Your task to perform on an android device: Search for "logitech g pro" on costco, select the first entry, and add it to the cart. Image 0: 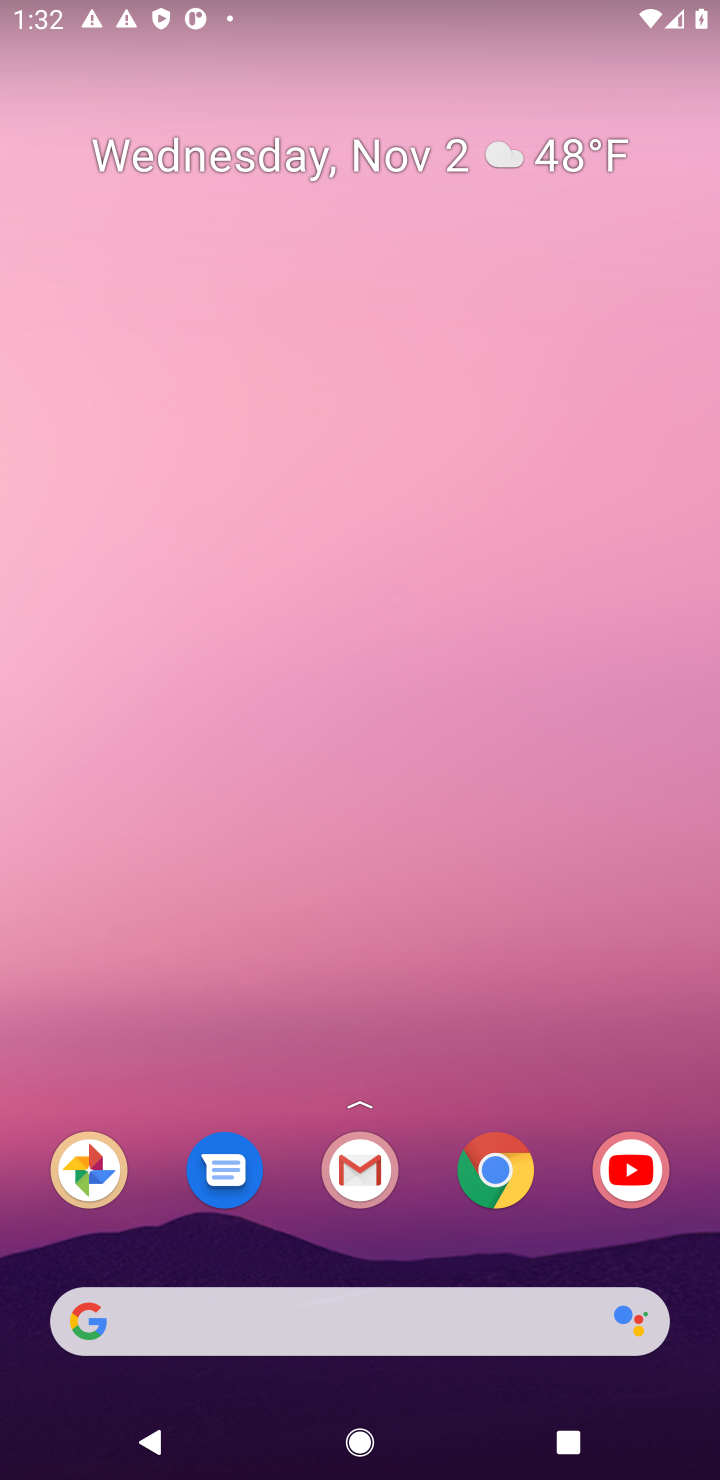
Step 0: drag from (386, 902) to (455, 482)
Your task to perform on an android device: Search for "logitech g pro" on costco, select the first entry, and add it to the cart. Image 1: 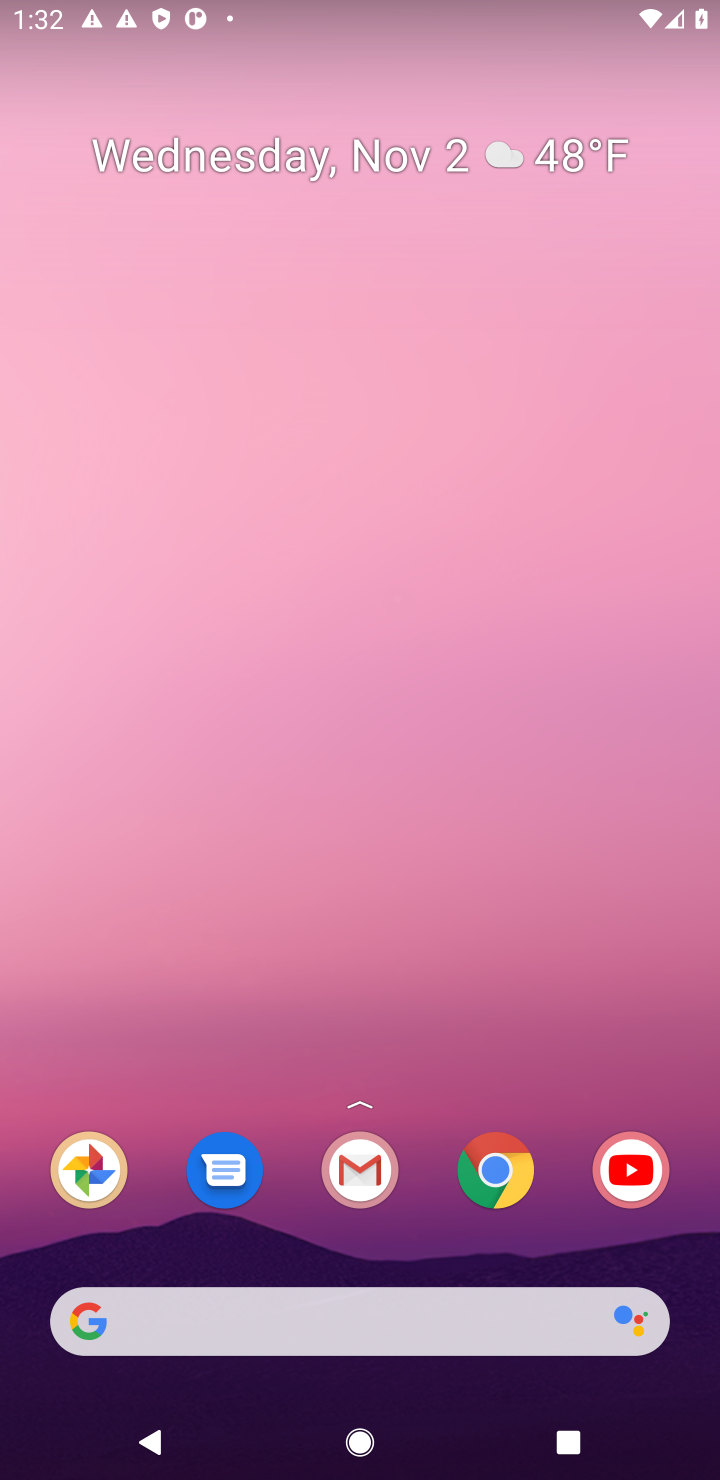
Step 1: drag from (423, 1218) to (425, 433)
Your task to perform on an android device: Search for "logitech g pro" on costco, select the first entry, and add it to the cart. Image 2: 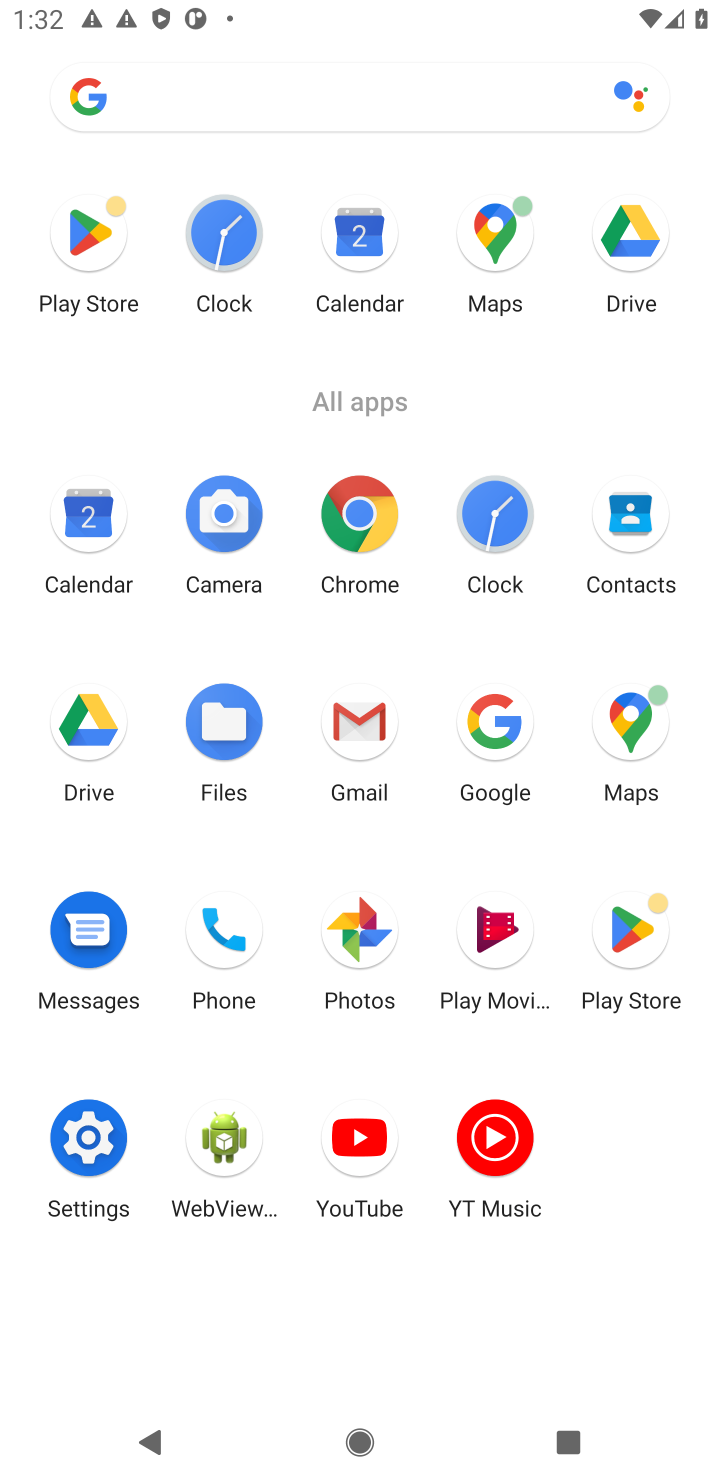
Step 2: click (498, 766)
Your task to perform on an android device: Search for "logitech g pro" on costco, select the first entry, and add it to the cart. Image 3: 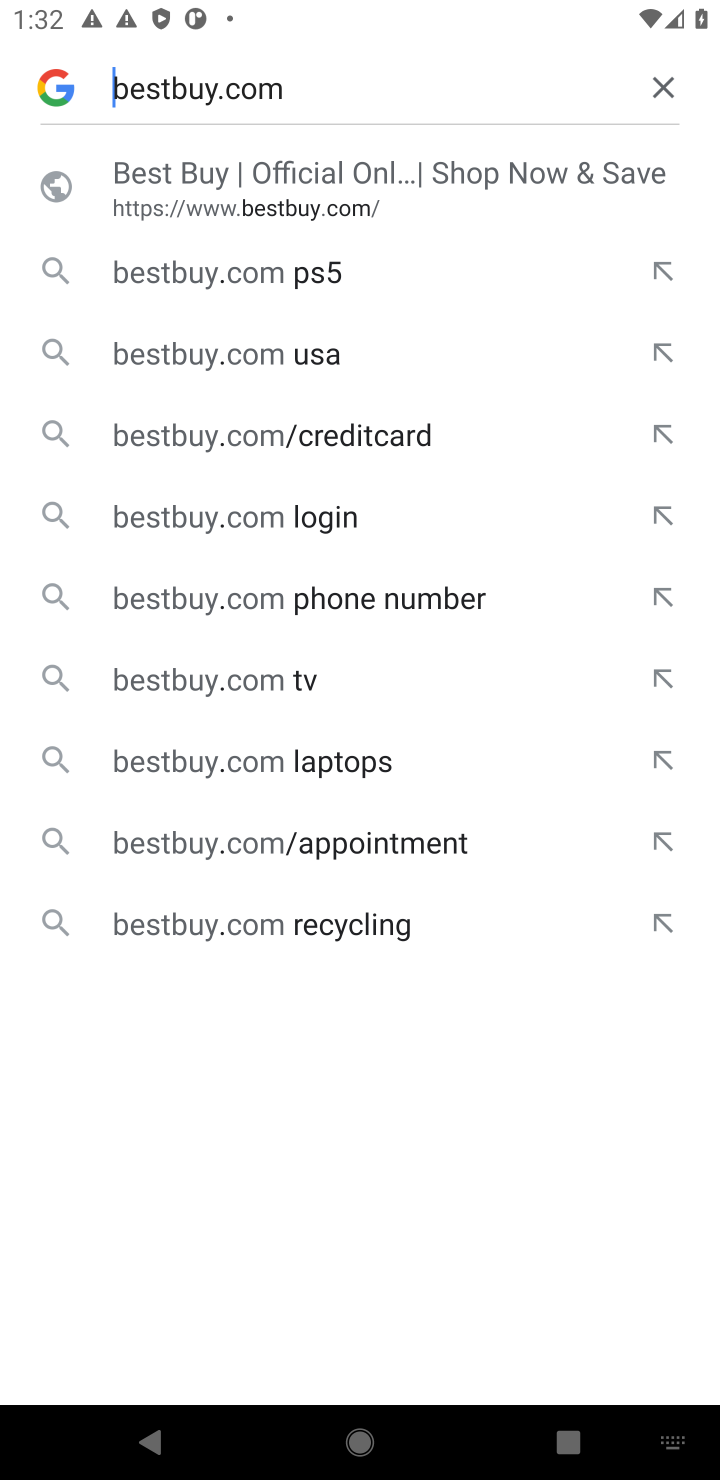
Step 3: click (663, 101)
Your task to perform on an android device: Search for "logitech g pro" on costco, select the first entry, and add it to the cart. Image 4: 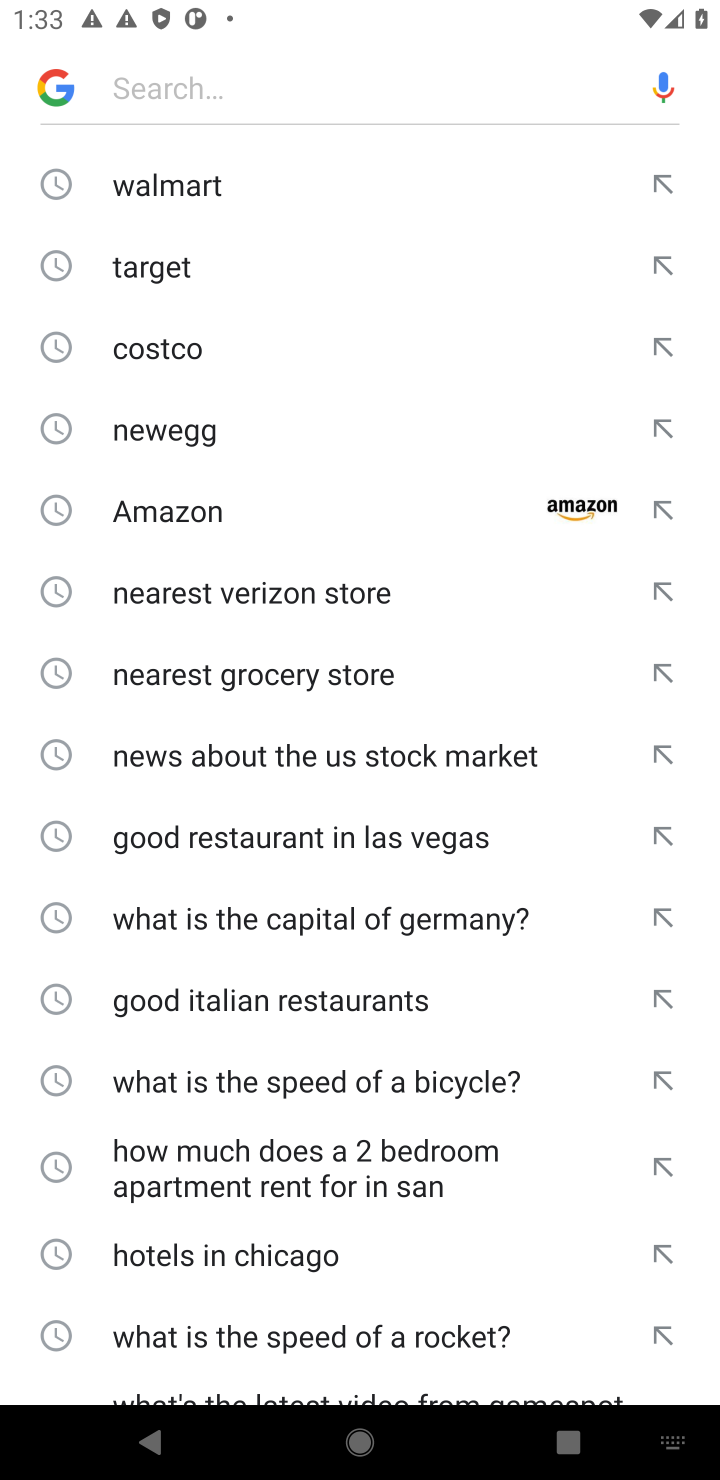
Step 4: type "costco"
Your task to perform on an android device: Search for "logitech g pro" on costco, select the first entry, and add it to the cart. Image 5: 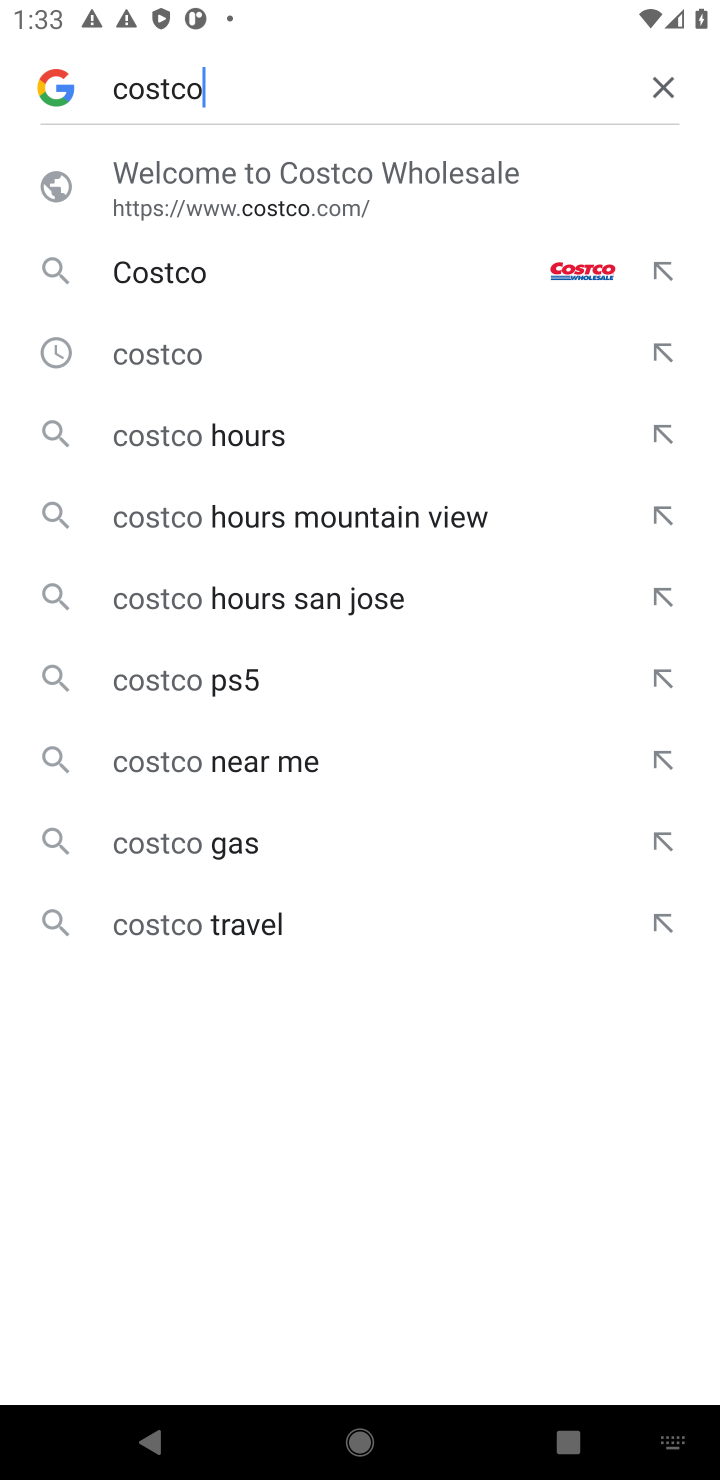
Step 5: click (379, 199)
Your task to perform on an android device: Search for "logitech g pro" on costco, select the first entry, and add it to the cart. Image 6: 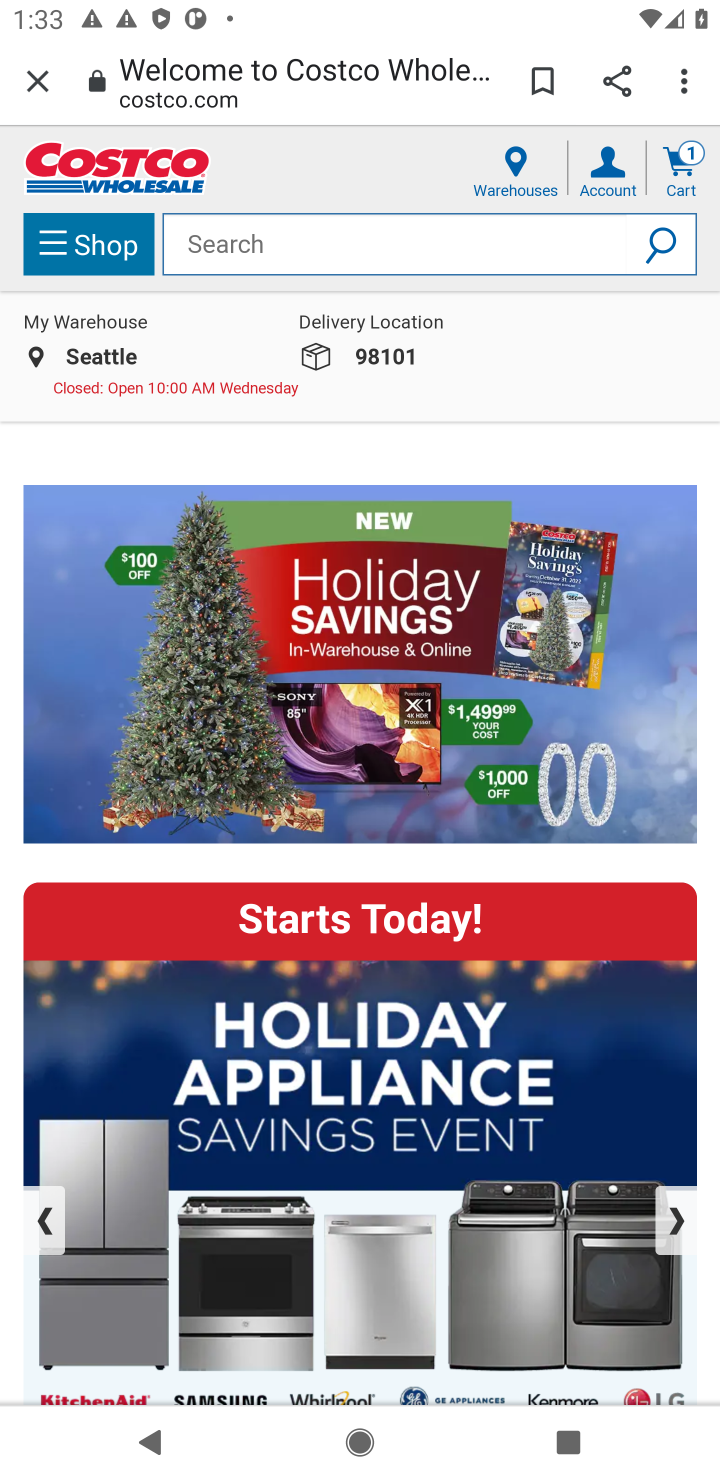
Step 6: click (390, 224)
Your task to perform on an android device: Search for "logitech g pro" on costco, select the first entry, and add it to the cart. Image 7: 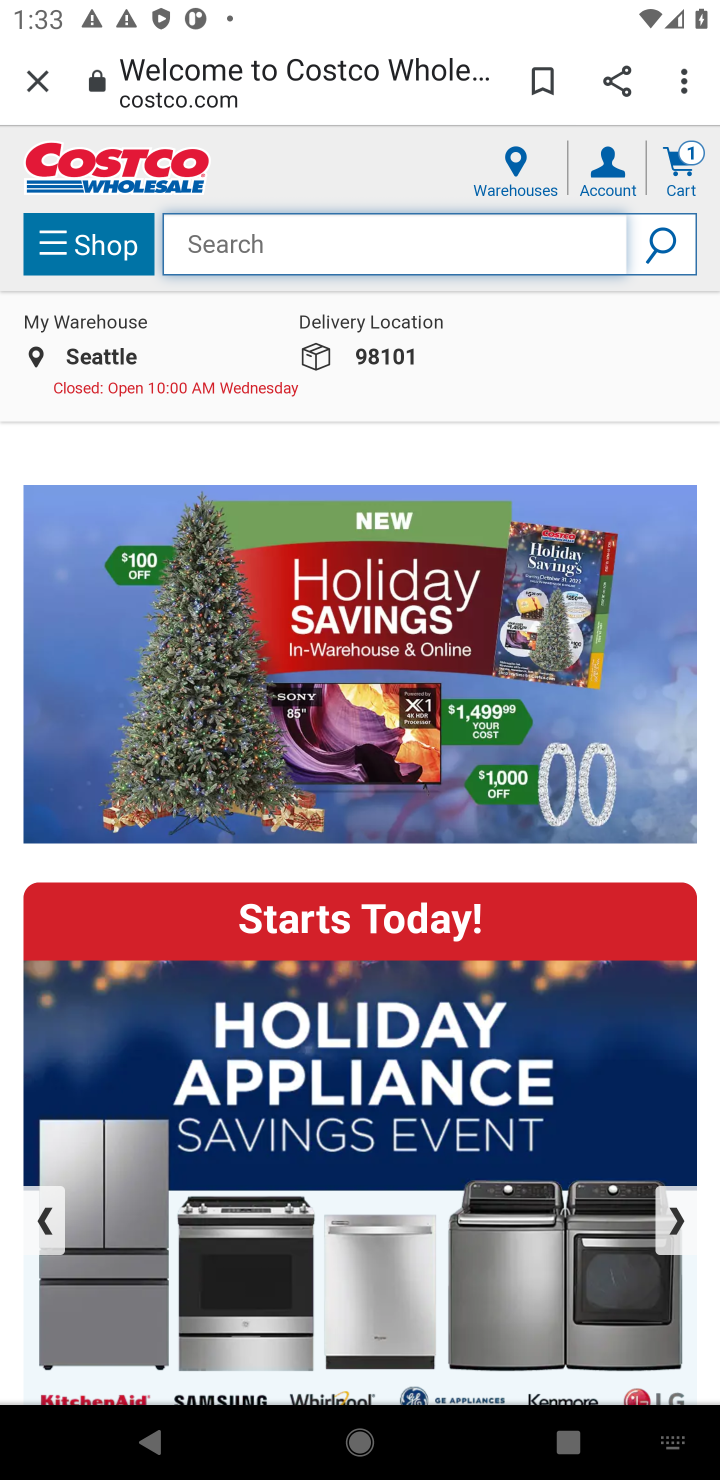
Step 7: type "logitech g pro"
Your task to perform on an android device: Search for "logitech g pro" on costco, select the first entry, and add it to the cart. Image 8: 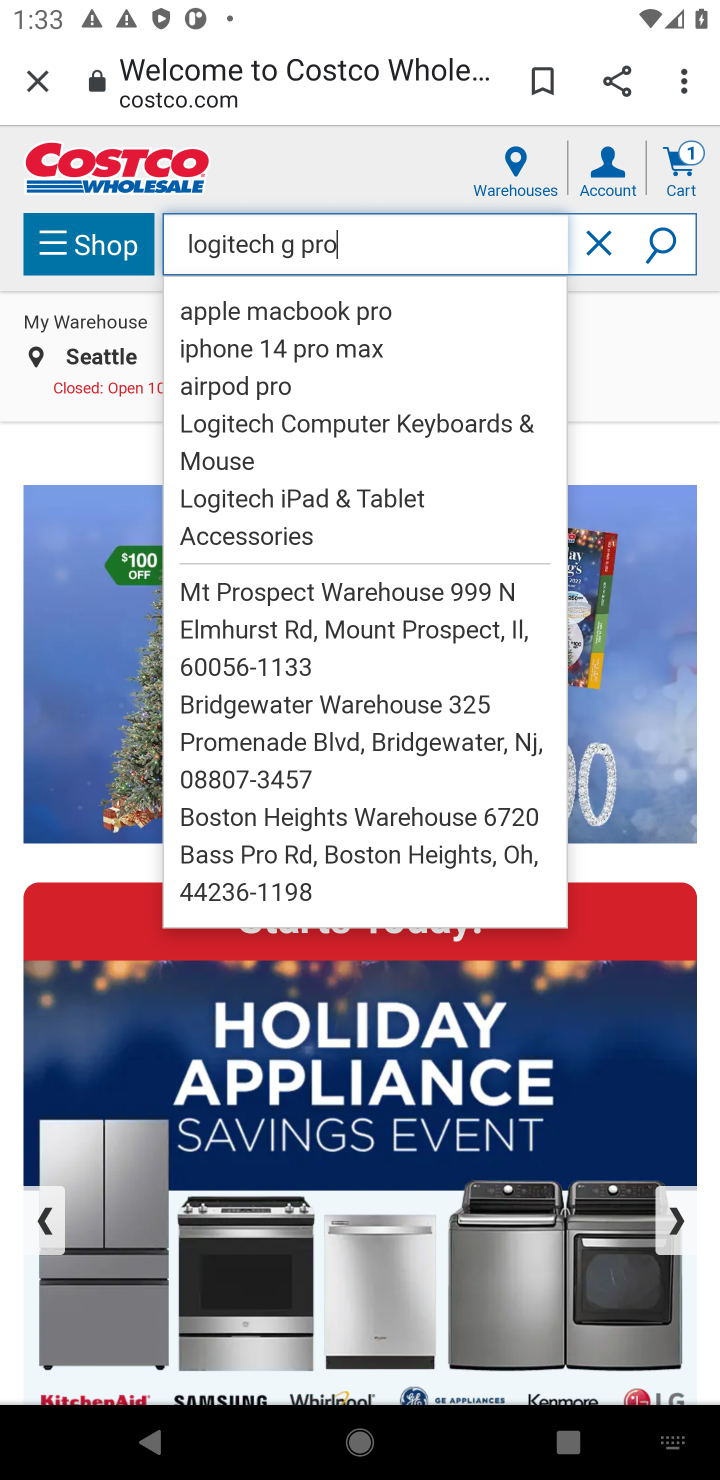
Step 8: click (656, 240)
Your task to perform on an android device: Search for "logitech g pro" on costco, select the first entry, and add it to the cart. Image 9: 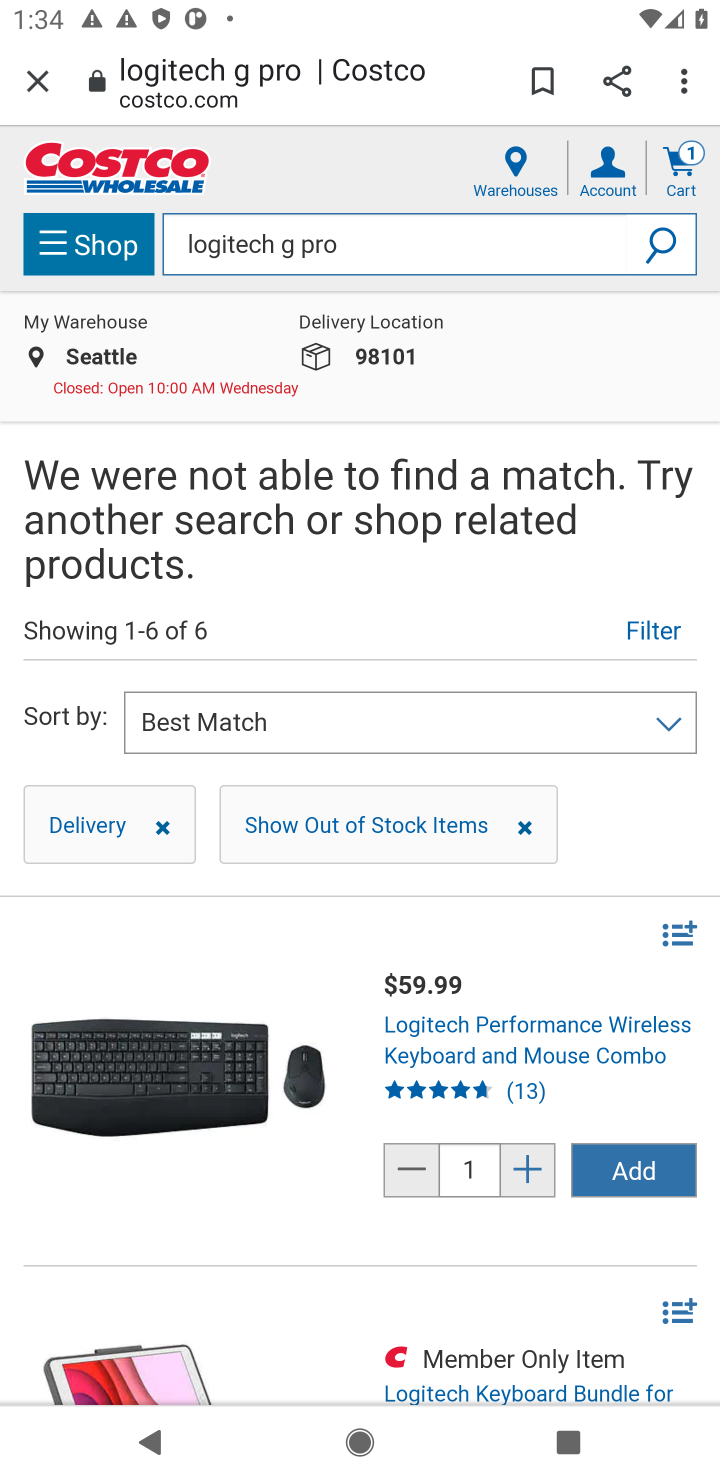
Step 9: click (218, 1027)
Your task to perform on an android device: Search for "logitech g pro" on costco, select the first entry, and add it to the cart. Image 10: 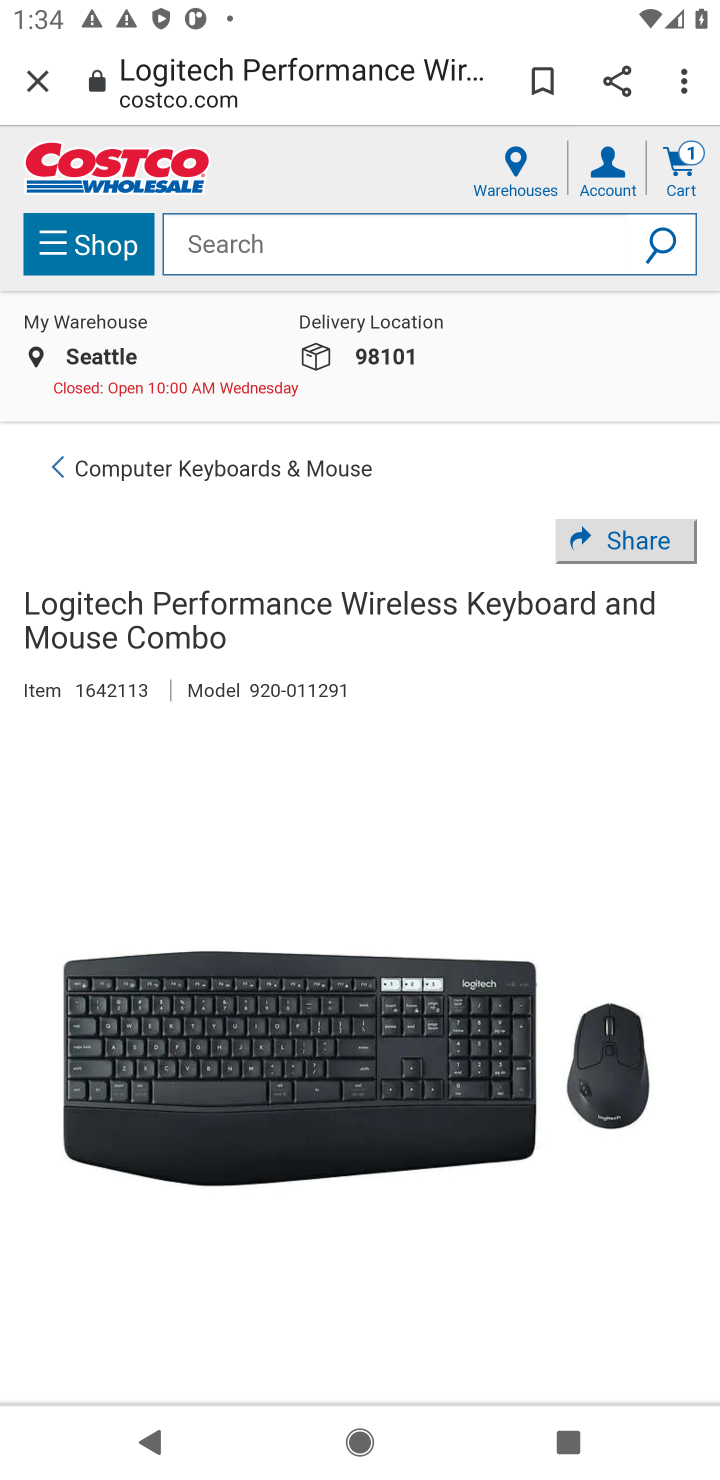
Step 10: drag from (418, 1031) to (507, 669)
Your task to perform on an android device: Search for "logitech g pro" on costco, select the first entry, and add it to the cart. Image 11: 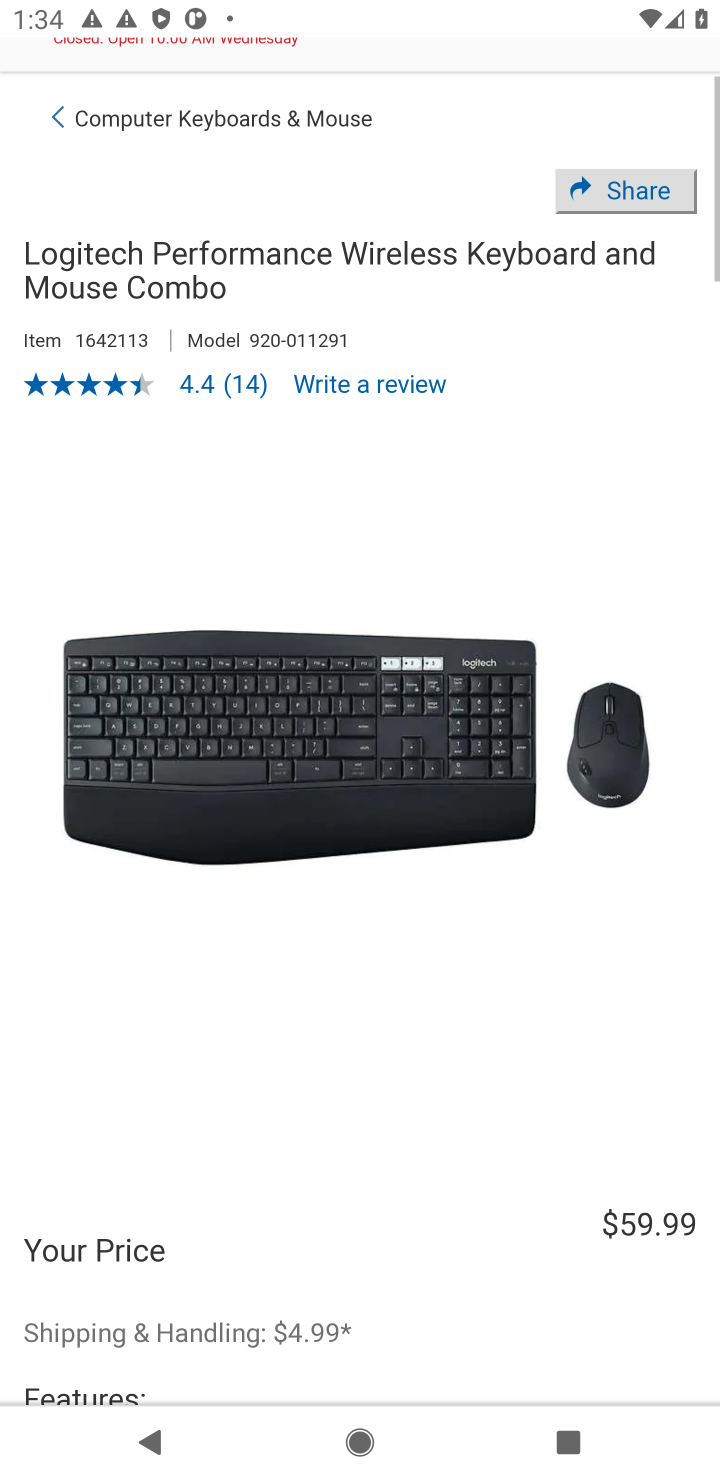
Step 11: click (507, 669)
Your task to perform on an android device: Search for "logitech g pro" on costco, select the first entry, and add it to the cart. Image 12: 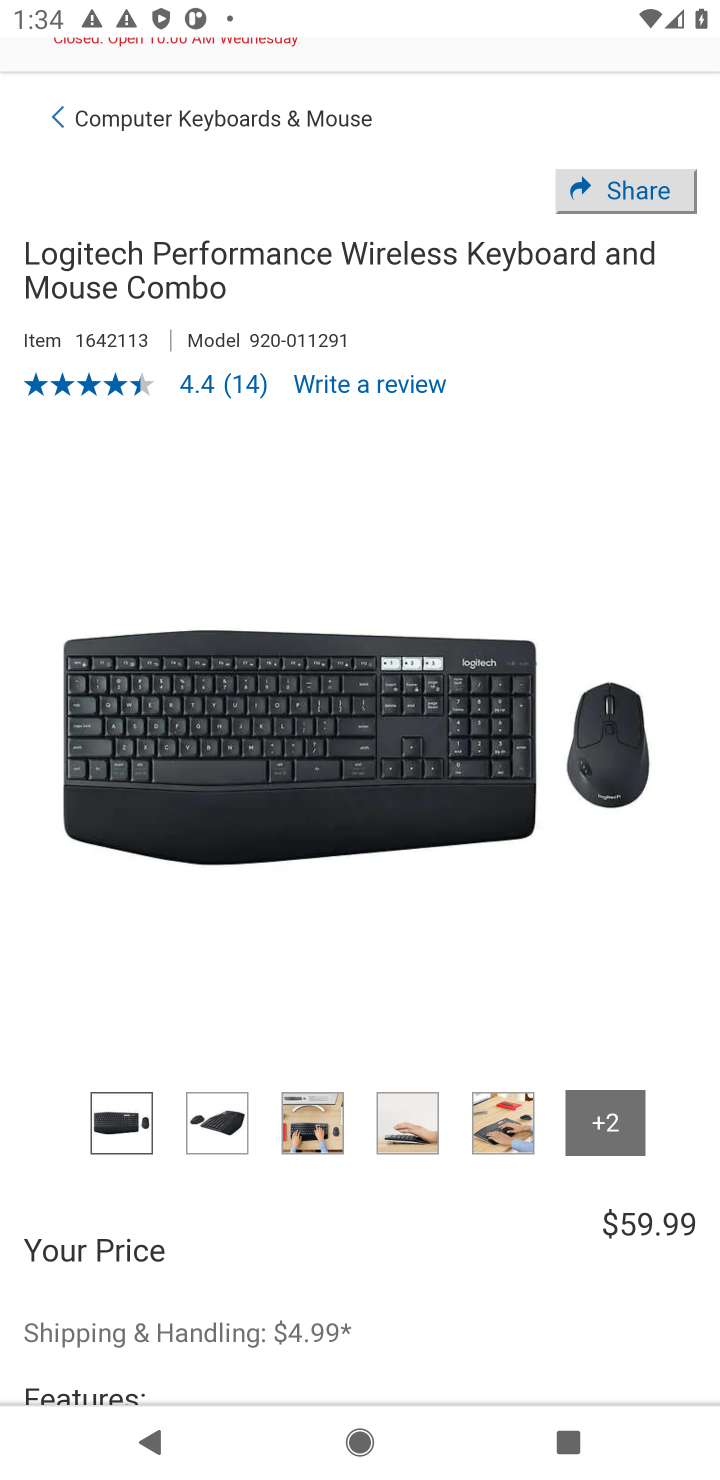
Step 12: drag from (506, 1052) to (551, 570)
Your task to perform on an android device: Search for "logitech g pro" on costco, select the first entry, and add it to the cart. Image 13: 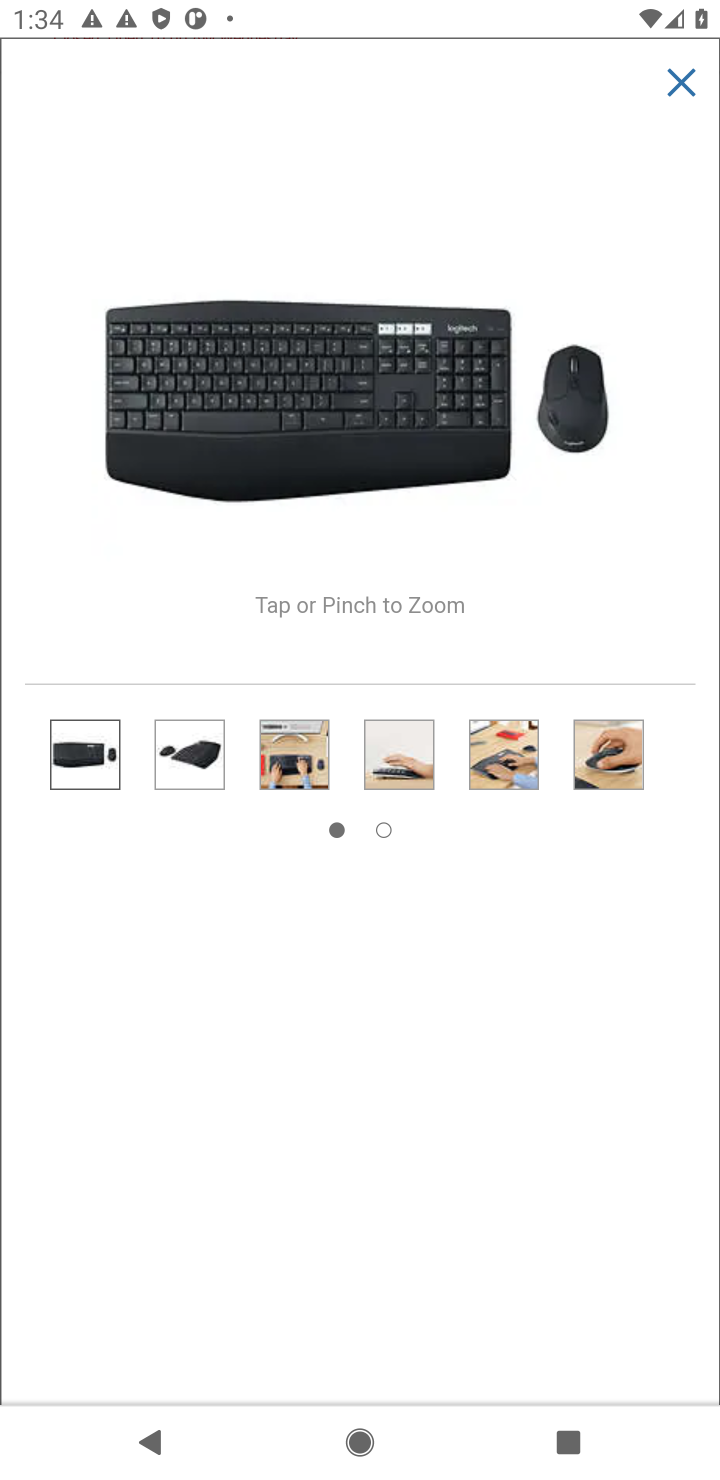
Step 13: click (674, 75)
Your task to perform on an android device: Search for "logitech g pro" on costco, select the first entry, and add it to the cart. Image 14: 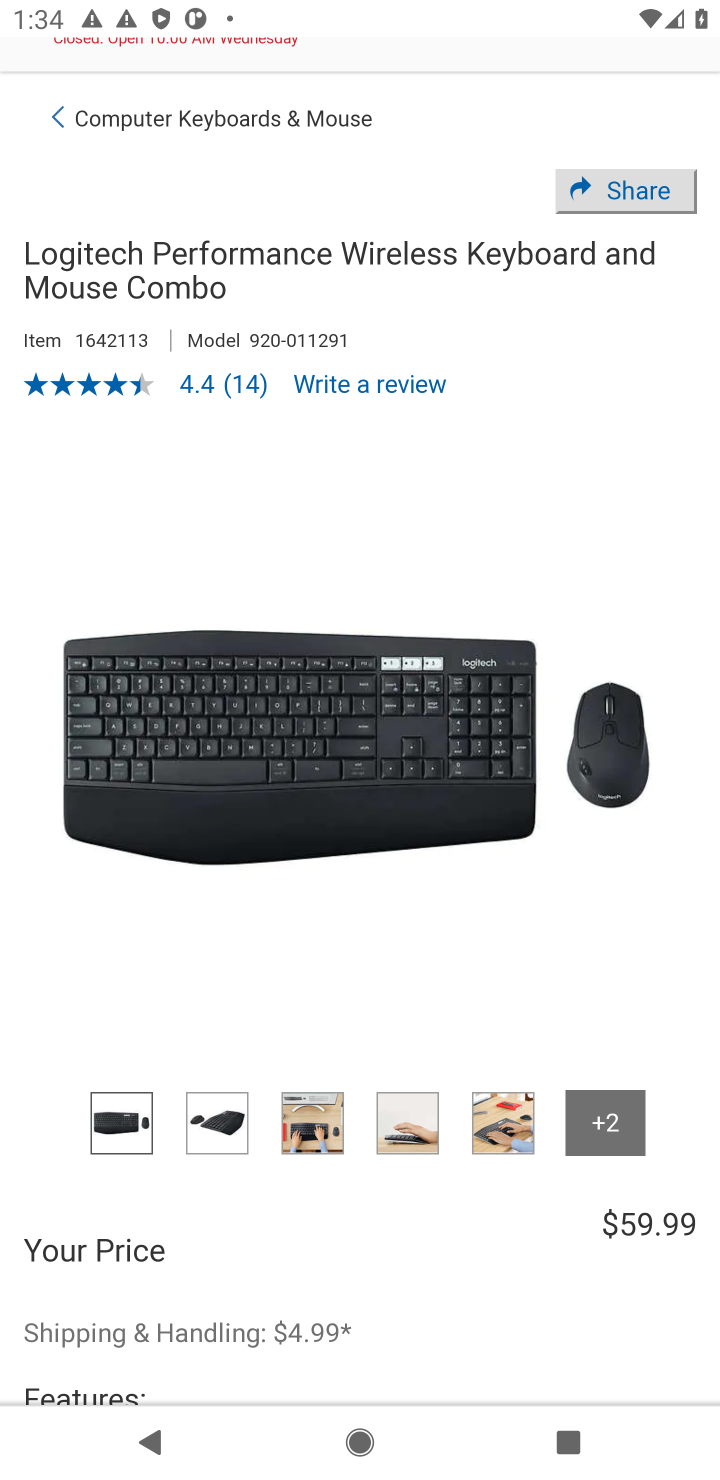
Step 14: drag from (504, 634) to (561, 426)
Your task to perform on an android device: Search for "logitech g pro" on costco, select the first entry, and add it to the cart. Image 15: 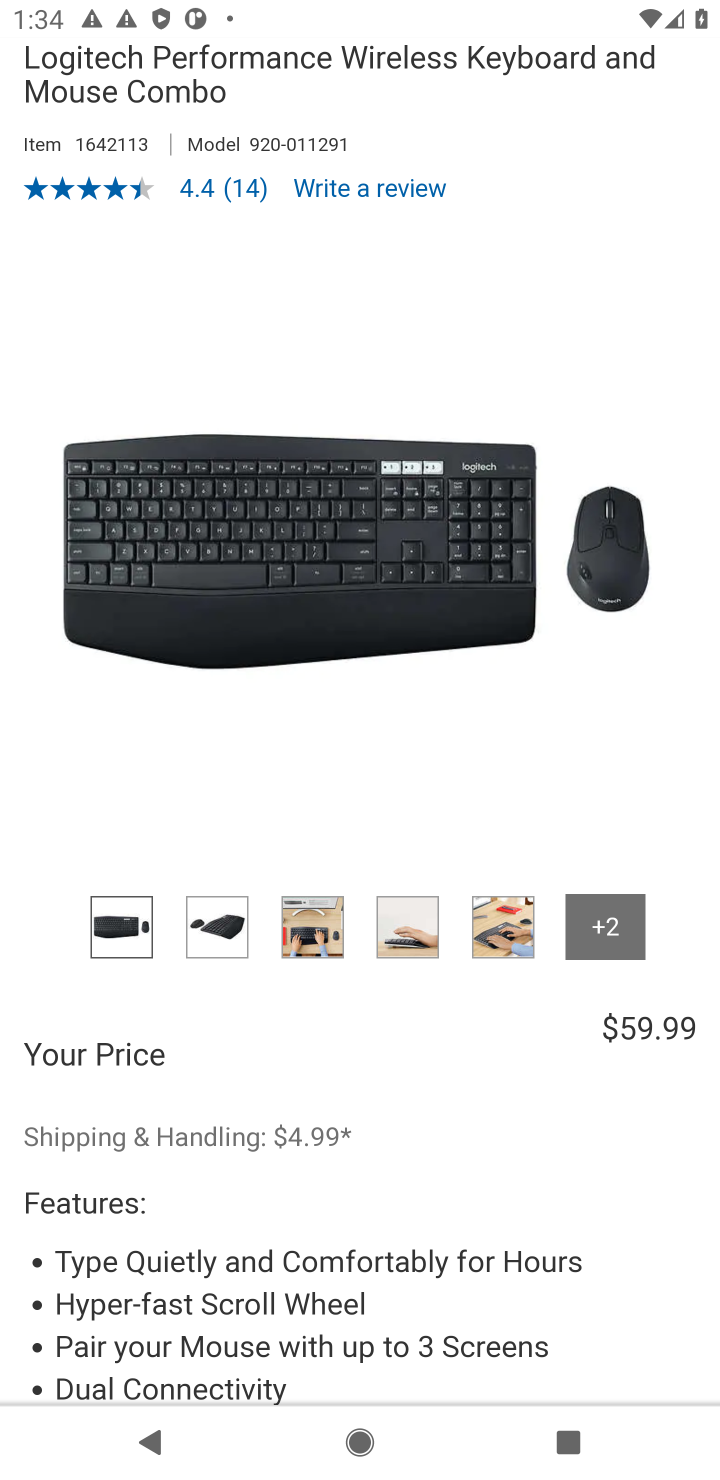
Step 15: drag from (524, 1159) to (558, 765)
Your task to perform on an android device: Search for "logitech g pro" on costco, select the first entry, and add it to the cart. Image 16: 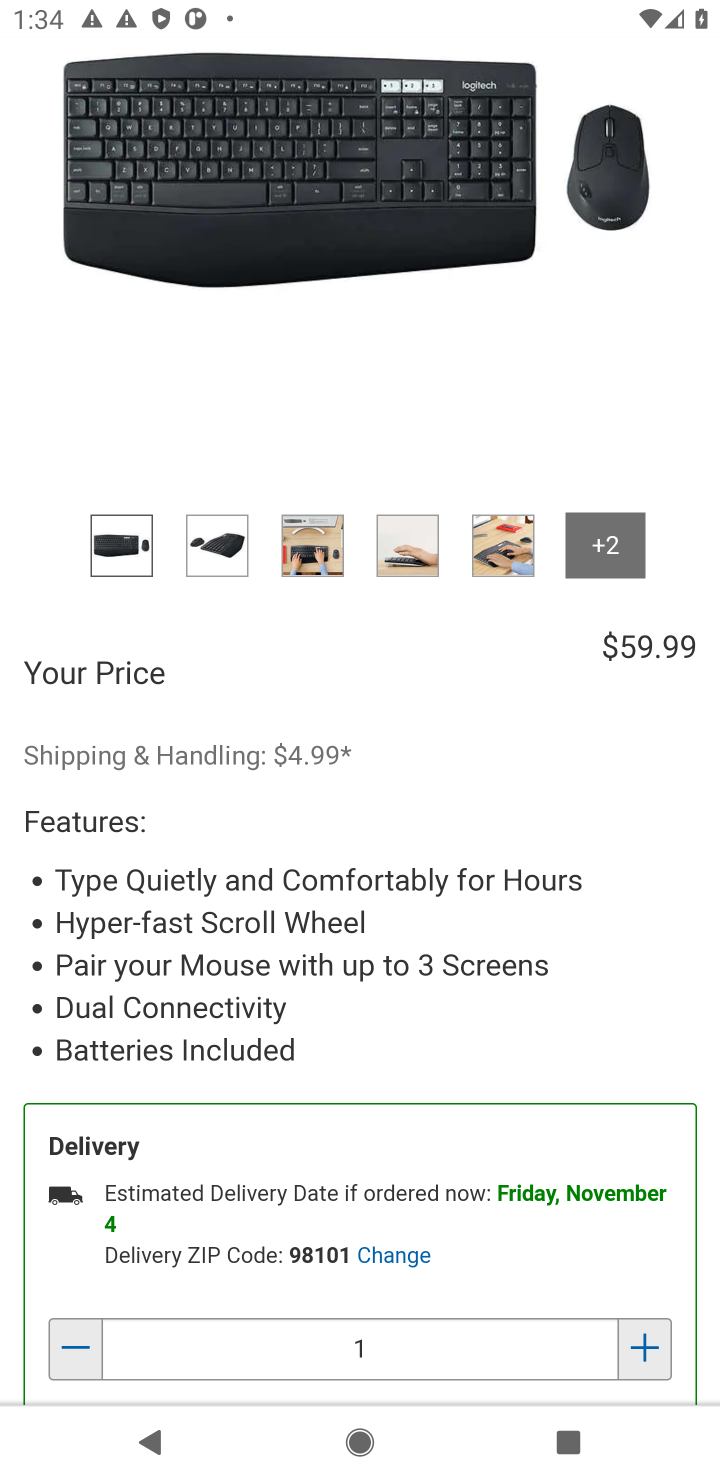
Step 16: drag from (440, 1128) to (518, 718)
Your task to perform on an android device: Search for "logitech g pro" on costco, select the first entry, and add it to the cart. Image 17: 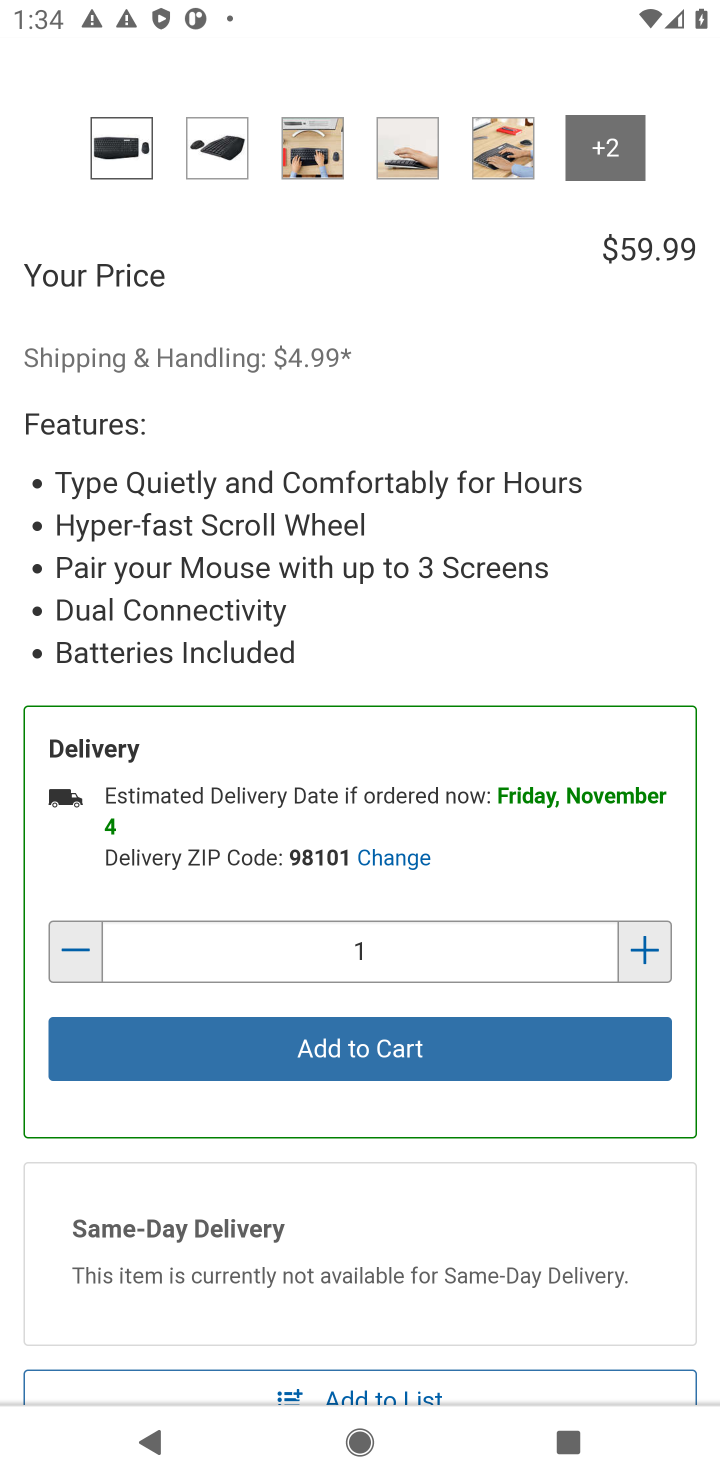
Step 17: click (493, 1043)
Your task to perform on an android device: Search for "logitech g pro" on costco, select the first entry, and add it to the cart. Image 18: 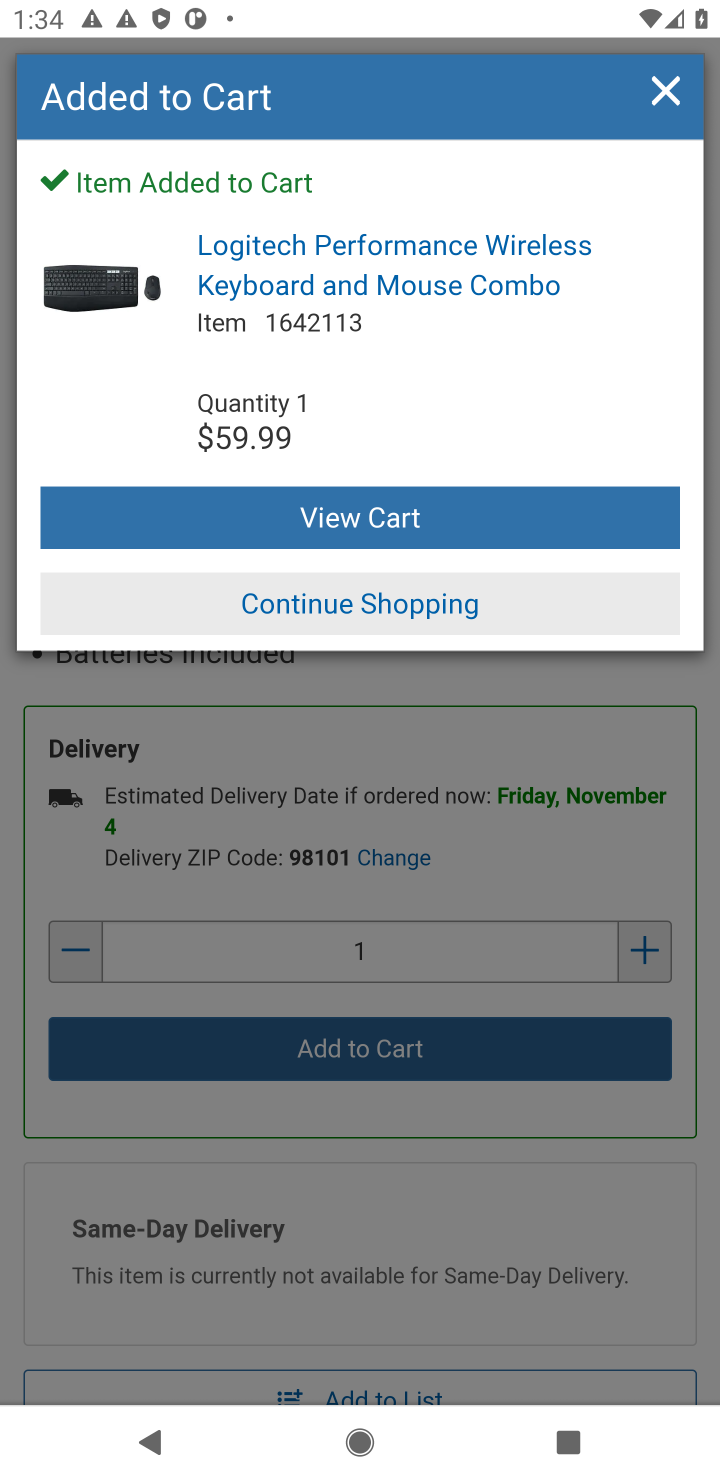
Step 18: task complete